Your task to perform on an android device: Open Youtube and go to the subscriptions tab Image 0: 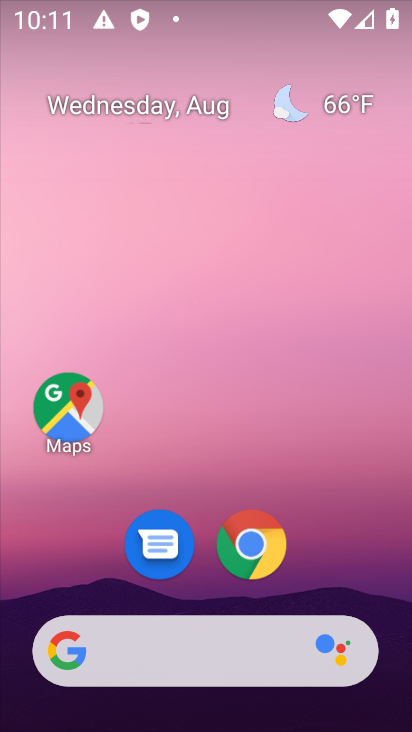
Step 0: task complete